Your task to perform on an android device: Search for a new blush on Sephora Image 0: 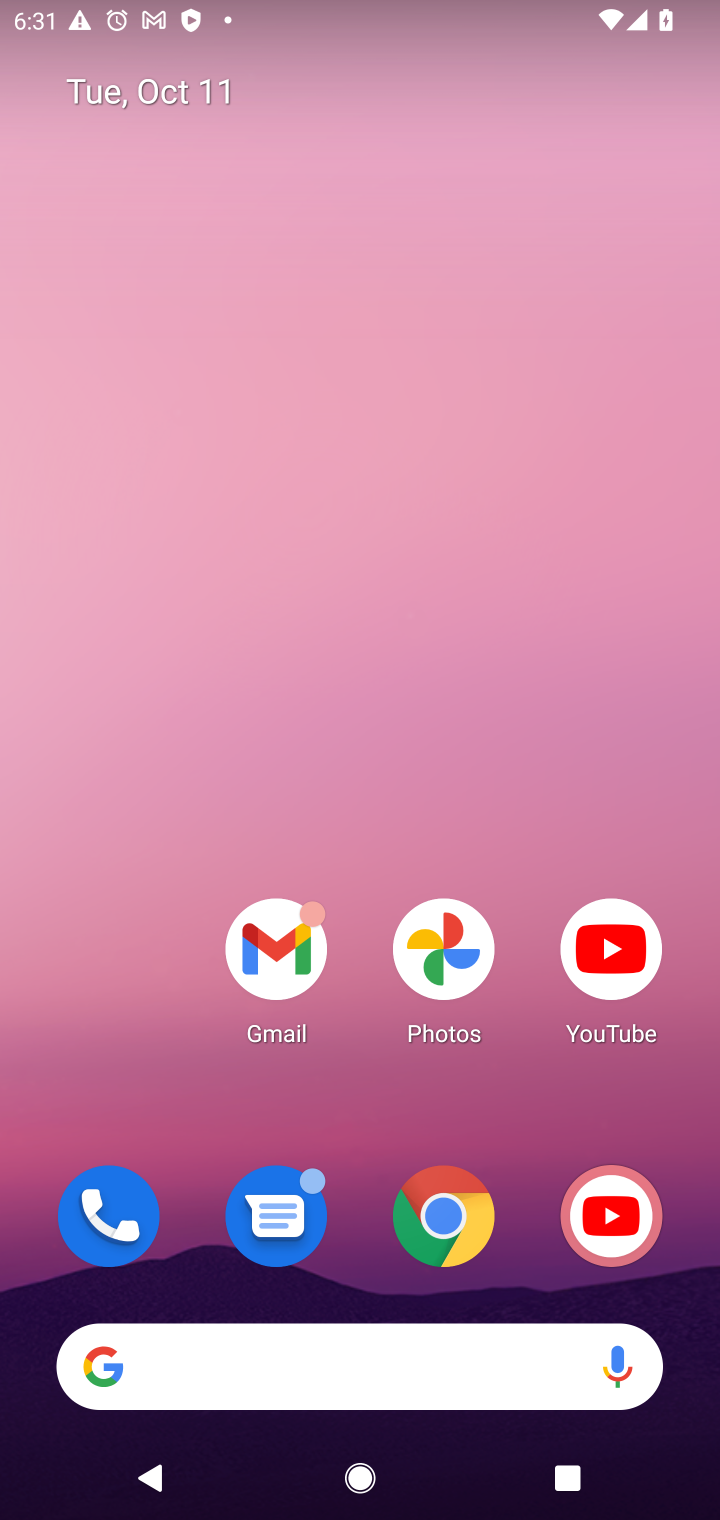
Step 0: click (435, 1245)
Your task to perform on an android device: Search for a new blush on Sephora Image 1: 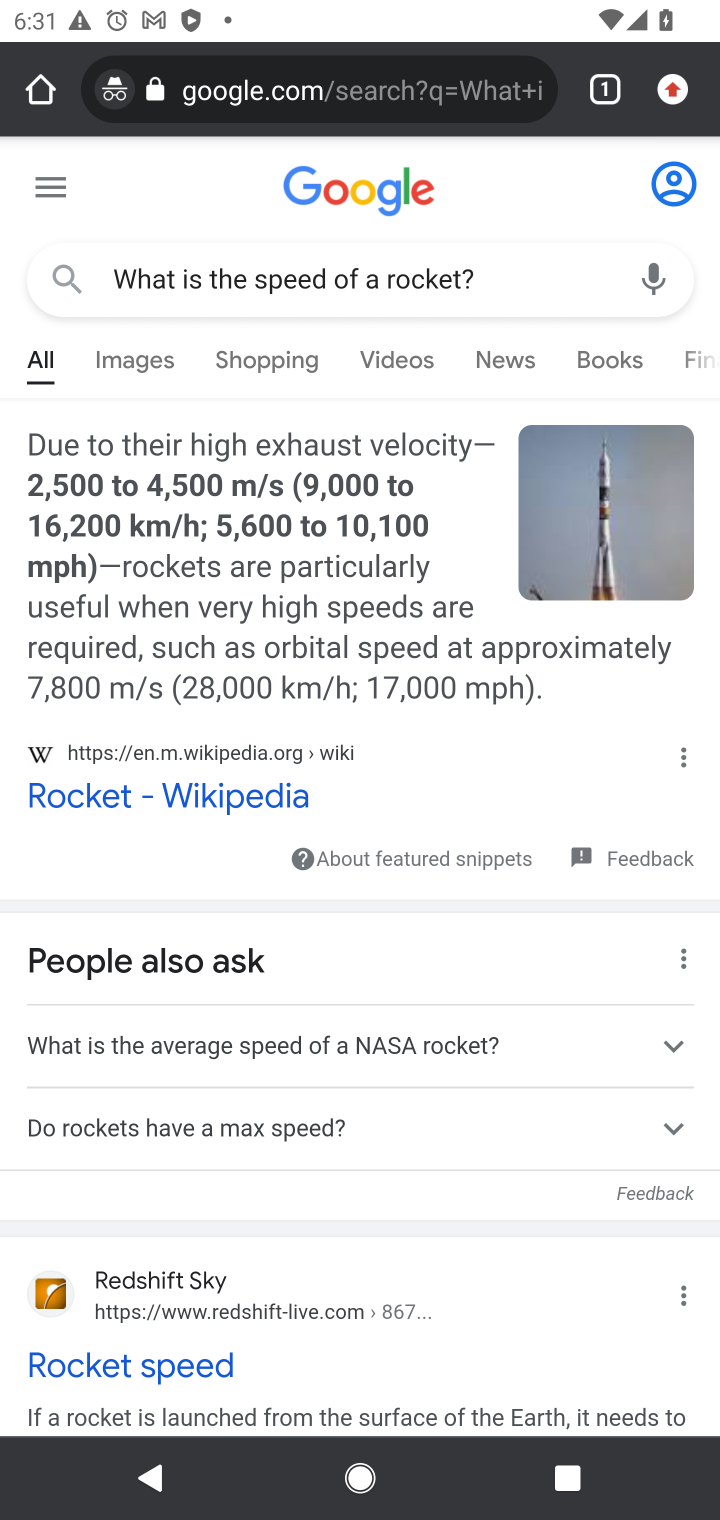
Step 1: click (492, 265)
Your task to perform on an android device: Search for a new blush on Sephora Image 2: 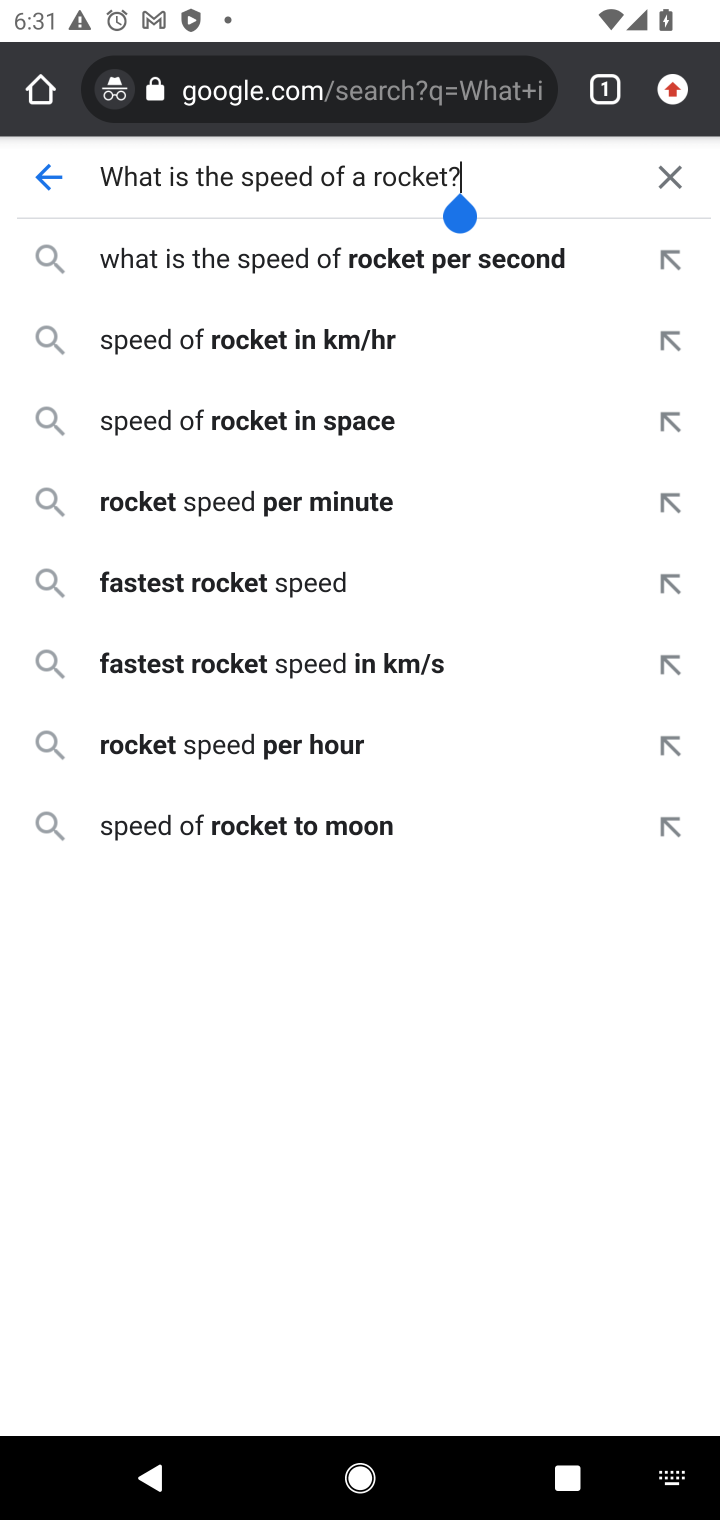
Step 2: click (653, 181)
Your task to perform on an android device: Search for a new blush on Sephora Image 3: 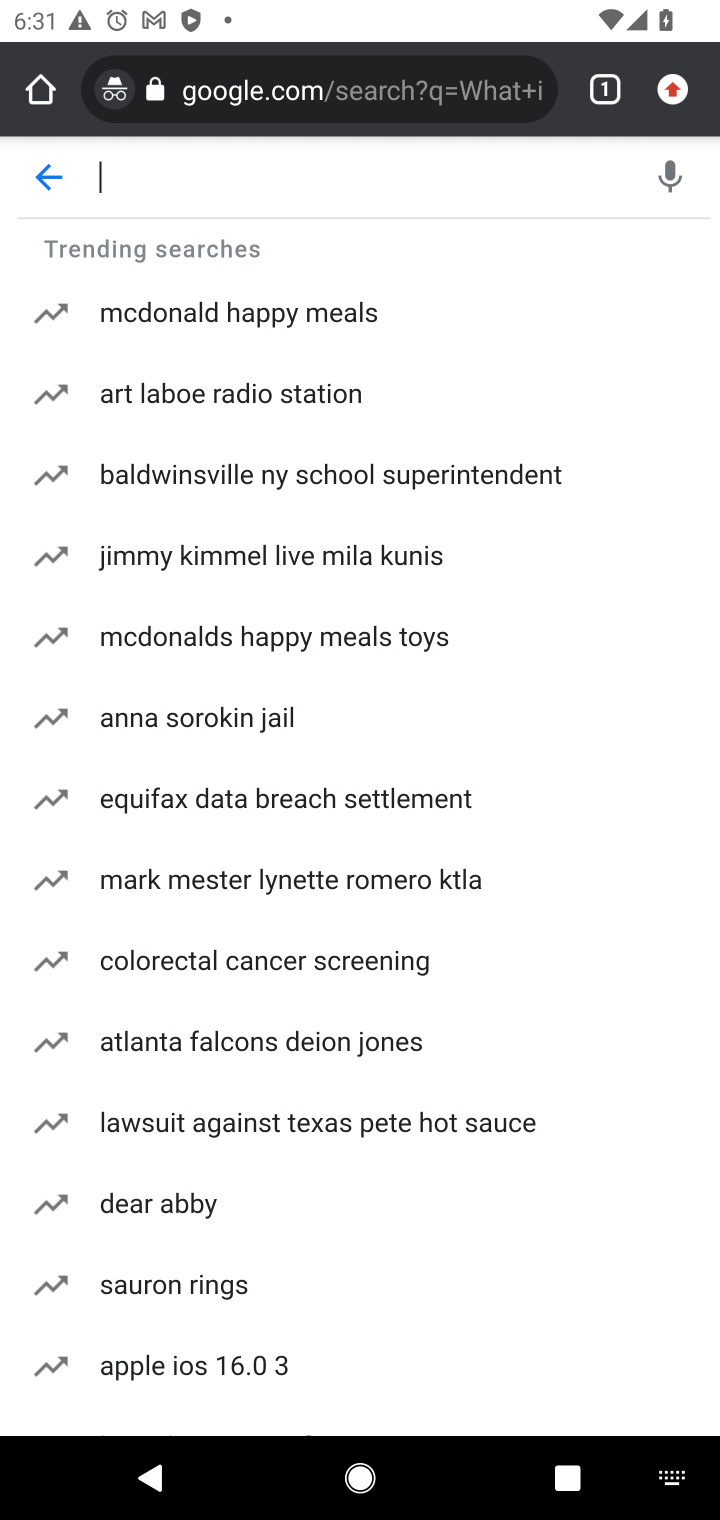
Step 3: type "new blush on Sephora"
Your task to perform on an android device: Search for a new blush on Sephora Image 4: 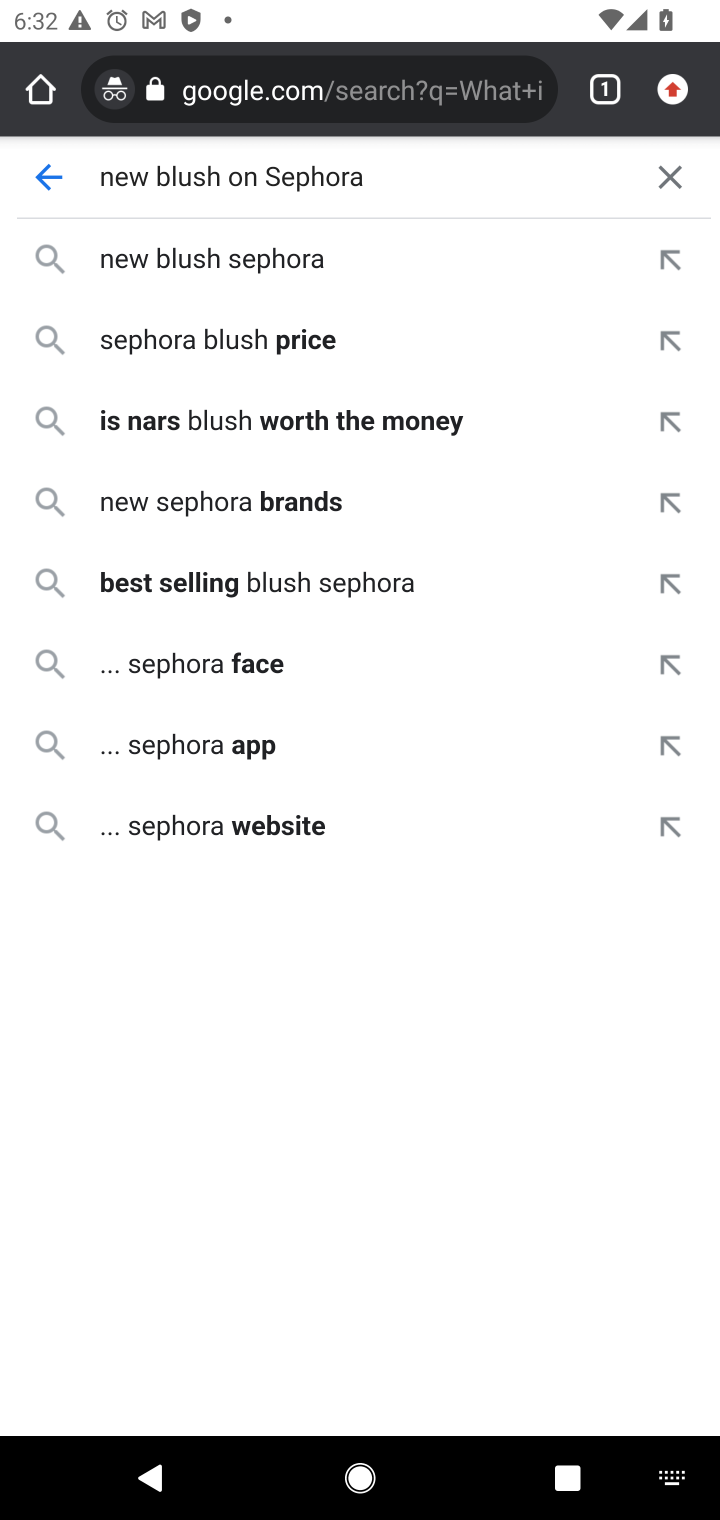
Step 4: press enter
Your task to perform on an android device: Search for a new blush on Sephora Image 5: 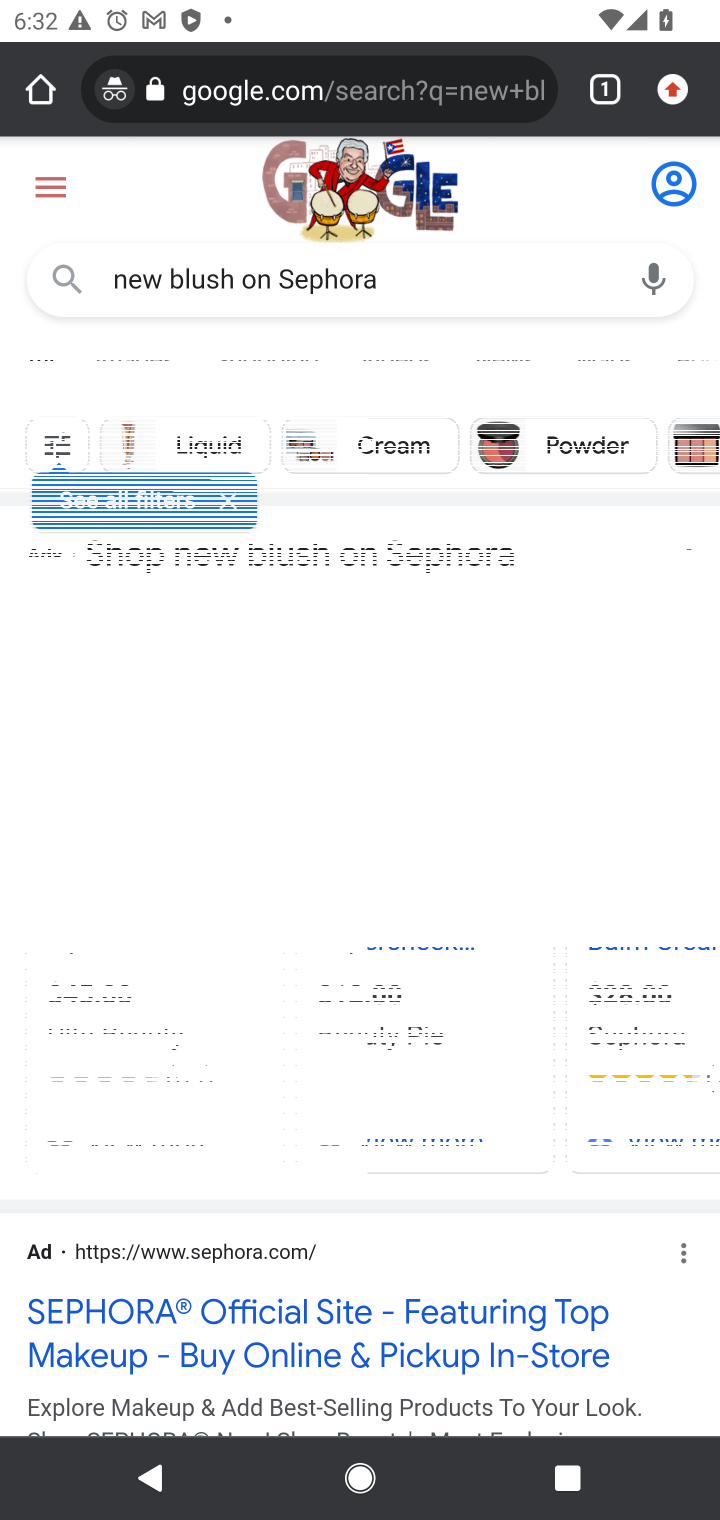
Step 5: task complete